Your task to perform on an android device: View the shopping cart on costco.com. Add alienware aurora to the cart on costco.com, then select checkout. Image 0: 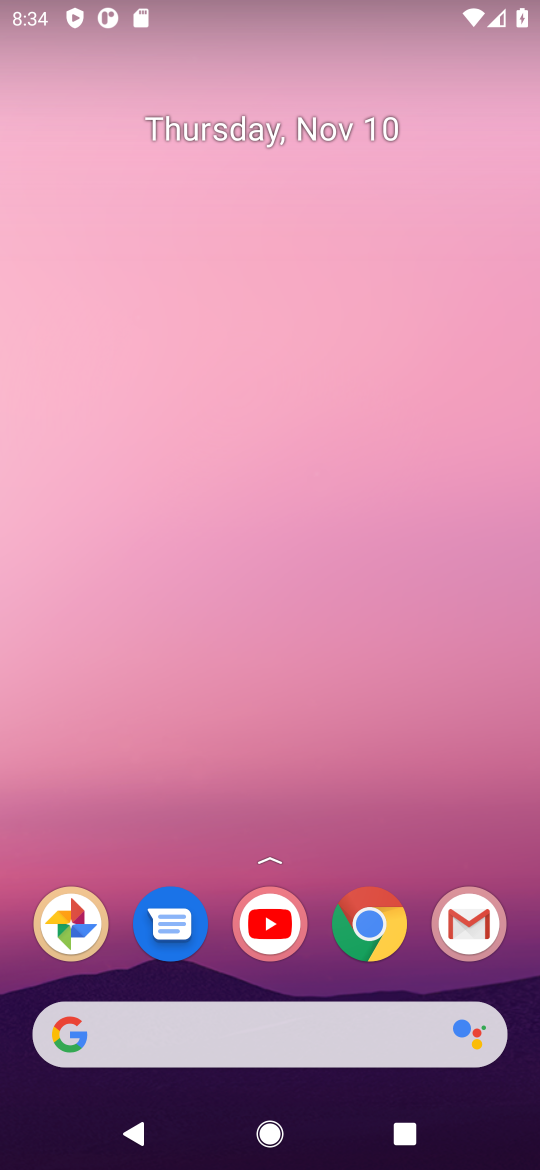
Step 0: click (369, 931)
Your task to perform on an android device: View the shopping cart on costco.com. Add alienware aurora to the cart on costco.com, then select checkout. Image 1: 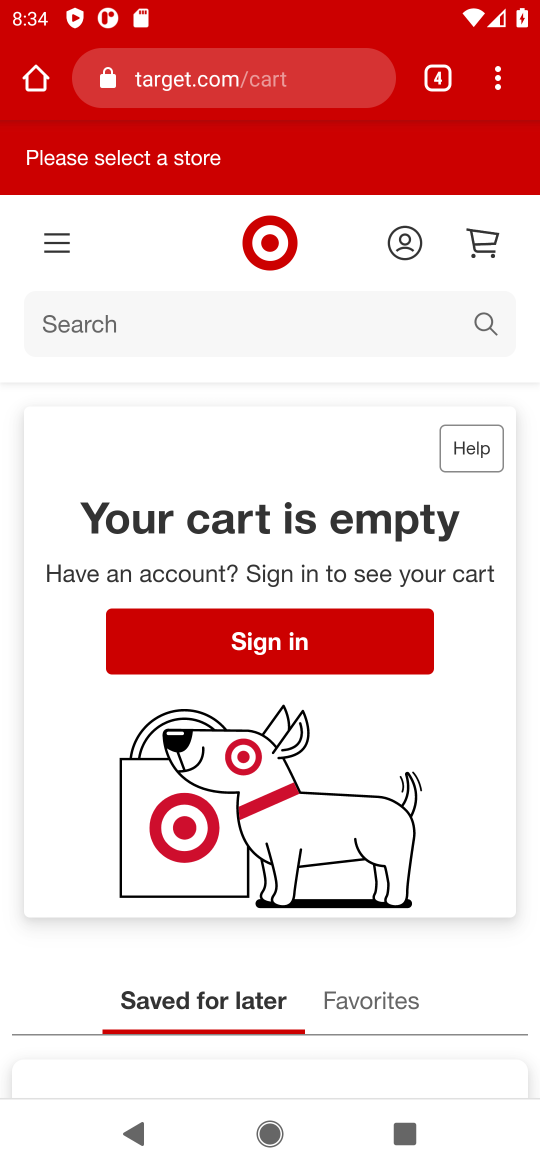
Step 1: click (212, 63)
Your task to perform on an android device: View the shopping cart on costco.com. Add alienware aurora to the cart on costco.com, then select checkout. Image 2: 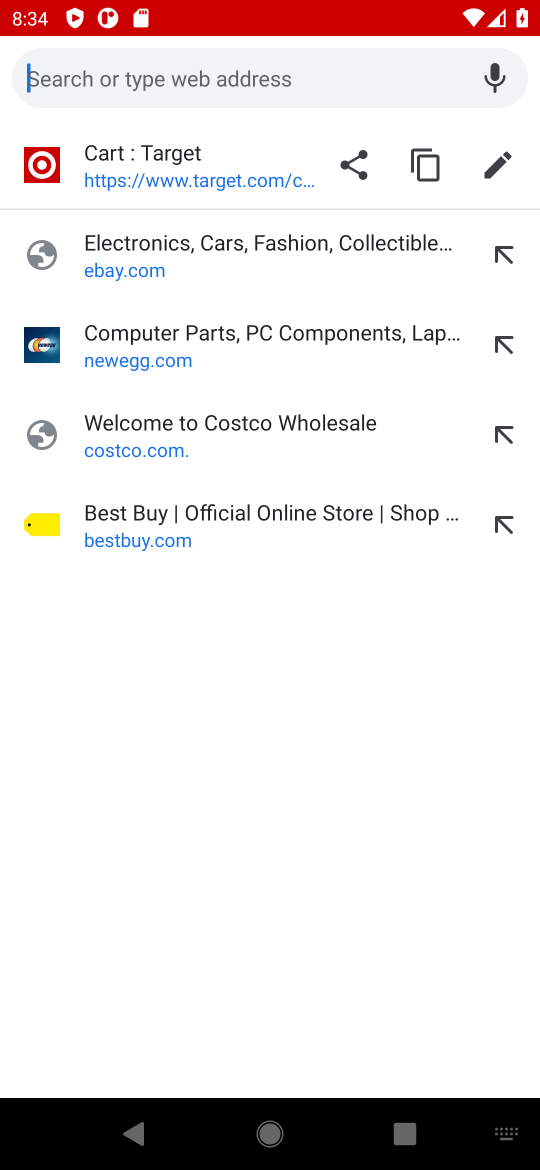
Step 2: type "costco.com"
Your task to perform on an android device: View the shopping cart on costco.com. Add alienware aurora to the cart on costco.com, then select checkout. Image 3: 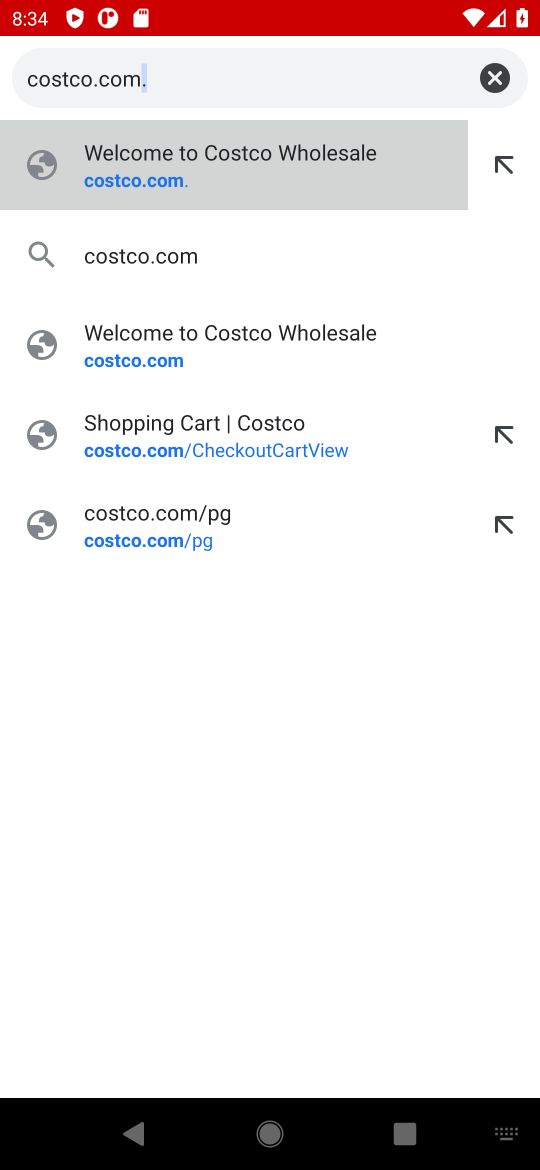
Step 3: click (124, 193)
Your task to perform on an android device: View the shopping cart on costco.com. Add alienware aurora to the cart on costco.com, then select checkout. Image 4: 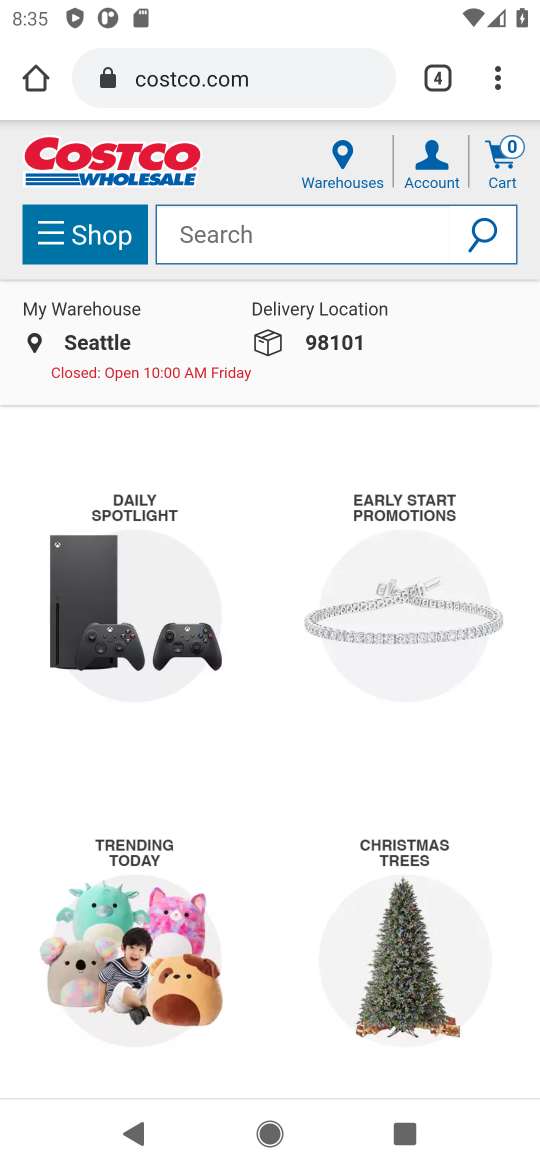
Step 4: click (499, 176)
Your task to perform on an android device: View the shopping cart on costco.com. Add alienware aurora to the cart on costco.com, then select checkout. Image 5: 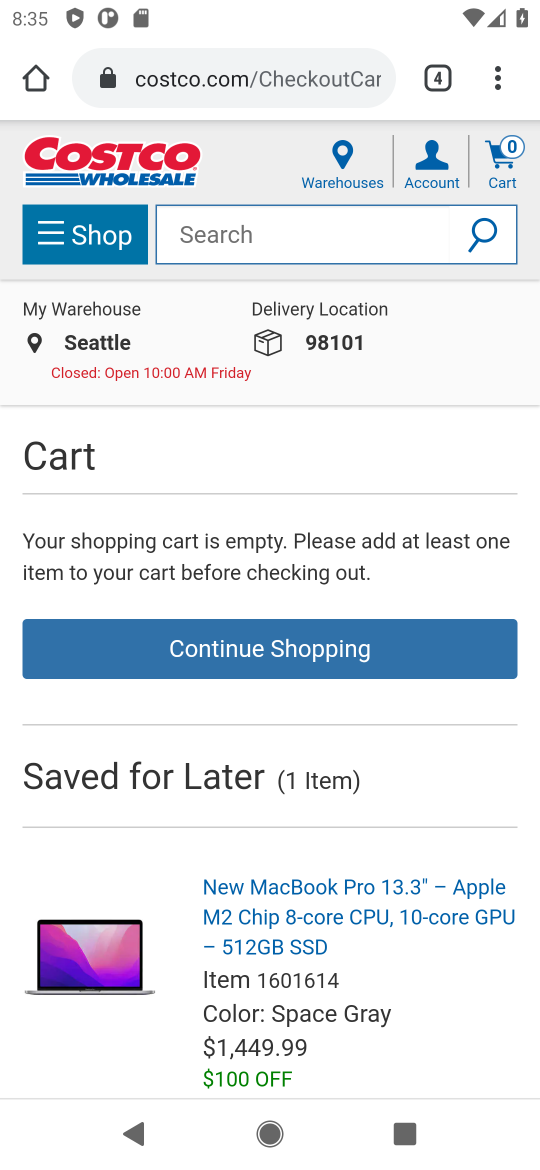
Step 5: click (215, 238)
Your task to perform on an android device: View the shopping cart on costco.com. Add alienware aurora to the cart on costco.com, then select checkout. Image 6: 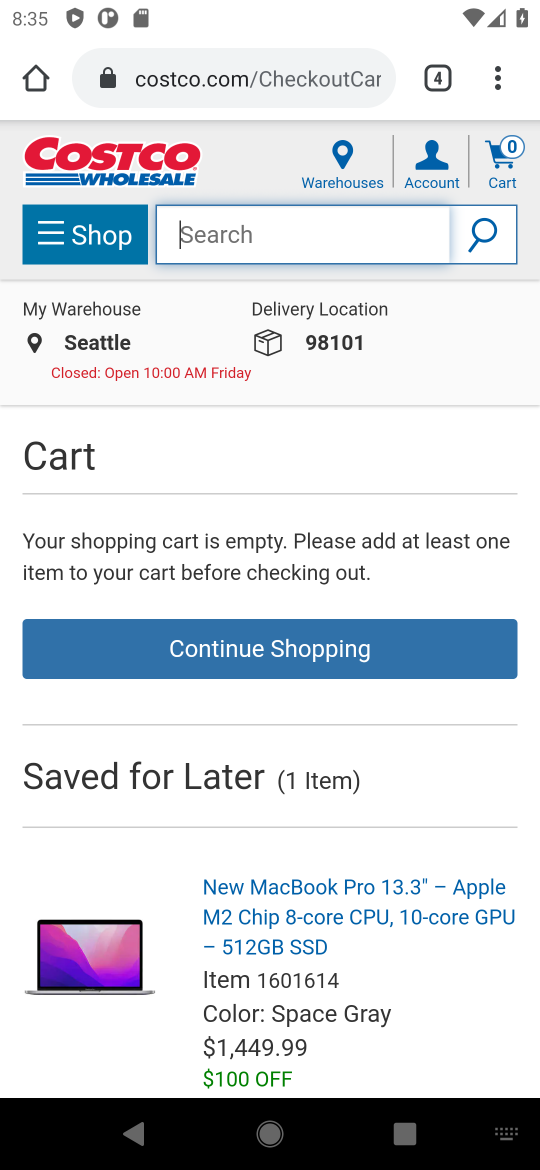
Step 6: type "alienware aurora"
Your task to perform on an android device: View the shopping cart on costco.com. Add alienware aurora to the cart on costco.com, then select checkout. Image 7: 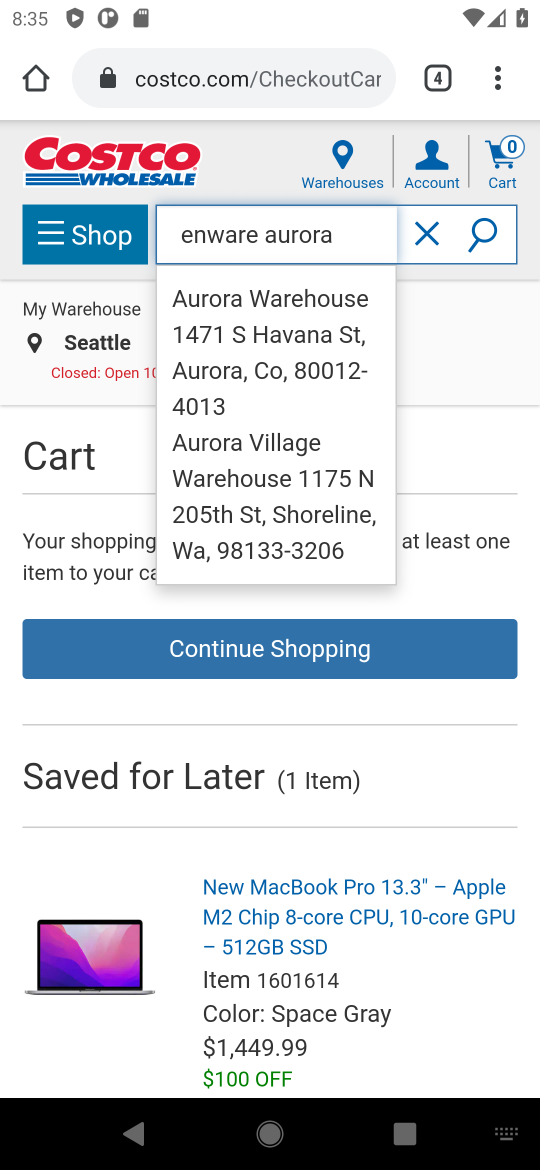
Step 7: click (483, 230)
Your task to perform on an android device: View the shopping cart on costco.com. Add alienware aurora to the cart on costco.com, then select checkout. Image 8: 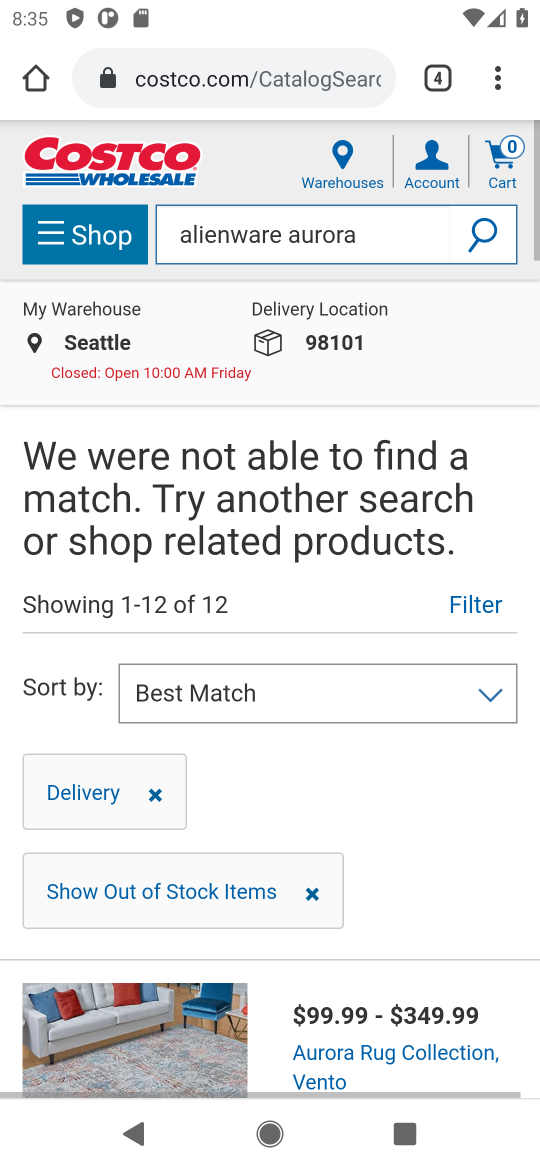
Step 8: task complete